Your task to perform on an android device: turn smart compose on in the gmail app Image 0: 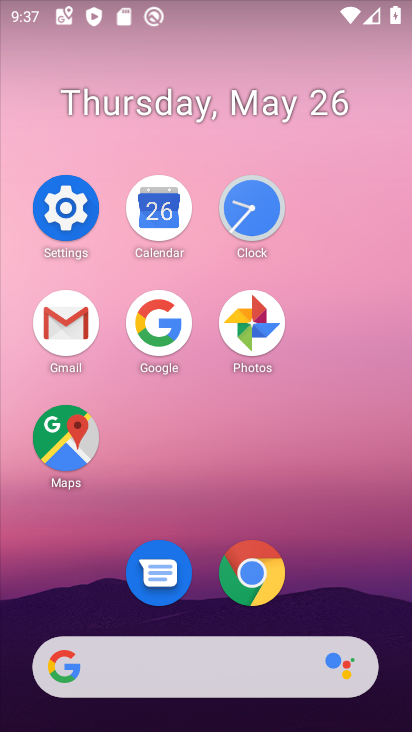
Step 0: click (48, 340)
Your task to perform on an android device: turn smart compose on in the gmail app Image 1: 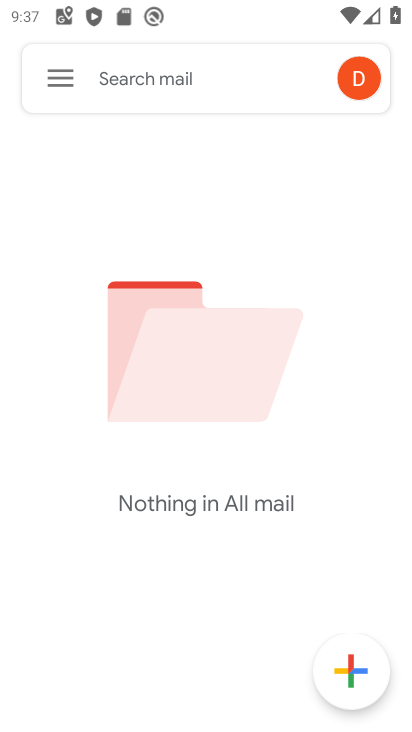
Step 1: click (70, 70)
Your task to perform on an android device: turn smart compose on in the gmail app Image 2: 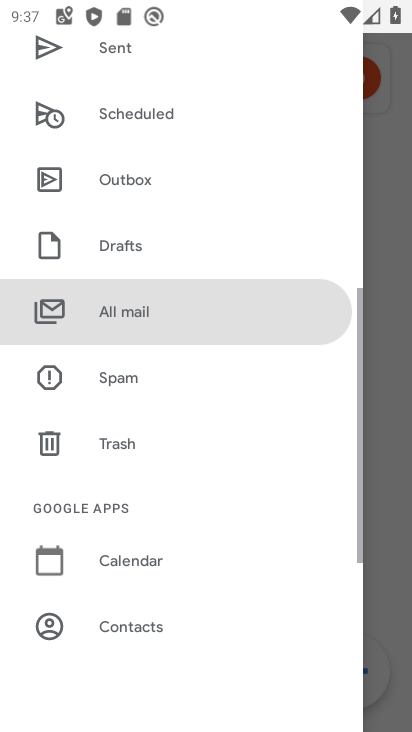
Step 2: drag from (163, 559) to (209, 204)
Your task to perform on an android device: turn smart compose on in the gmail app Image 3: 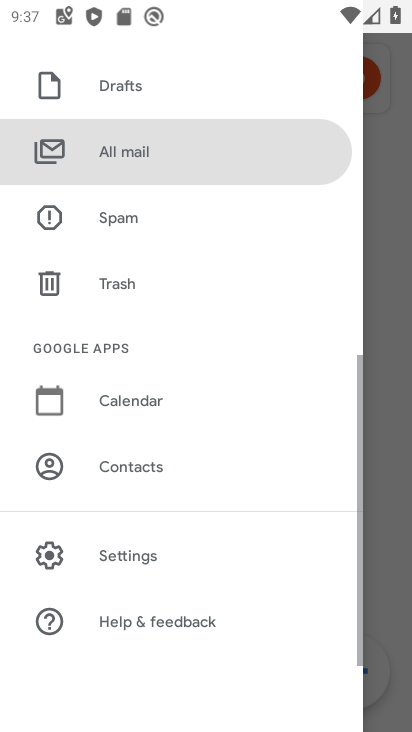
Step 3: click (123, 576)
Your task to perform on an android device: turn smart compose on in the gmail app Image 4: 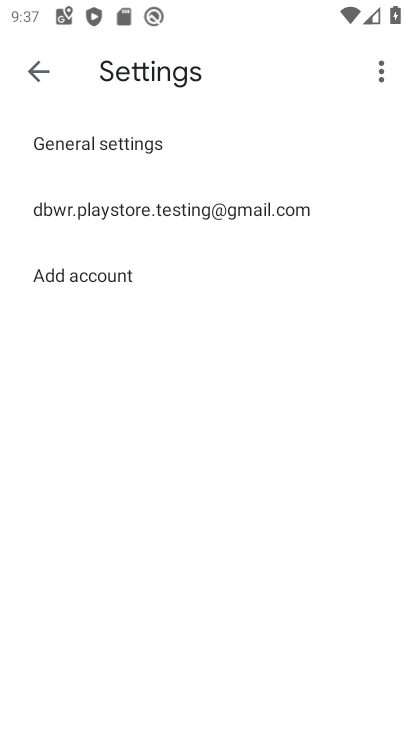
Step 4: click (189, 230)
Your task to perform on an android device: turn smart compose on in the gmail app Image 5: 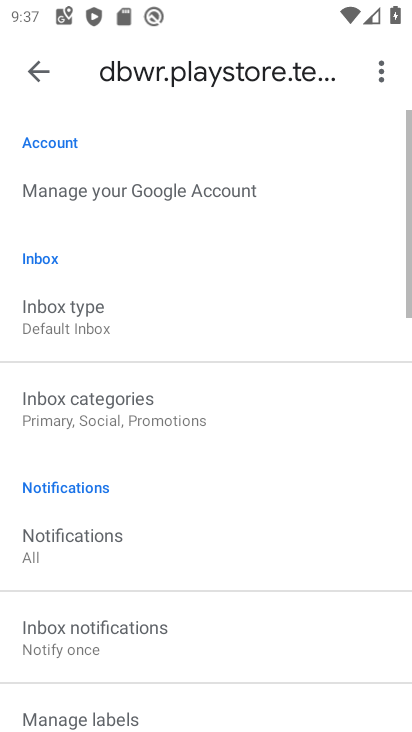
Step 5: task complete